Your task to perform on an android device: turn on javascript in the chrome app Image 0: 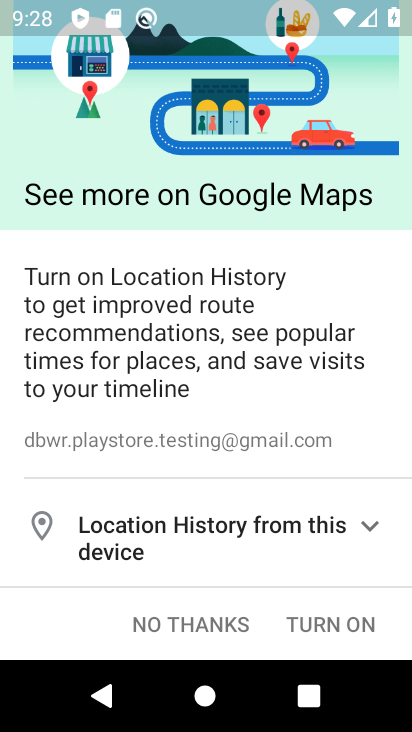
Step 0: press home button
Your task to perform on an android device: turn on javascript in the chrome app Image 1: 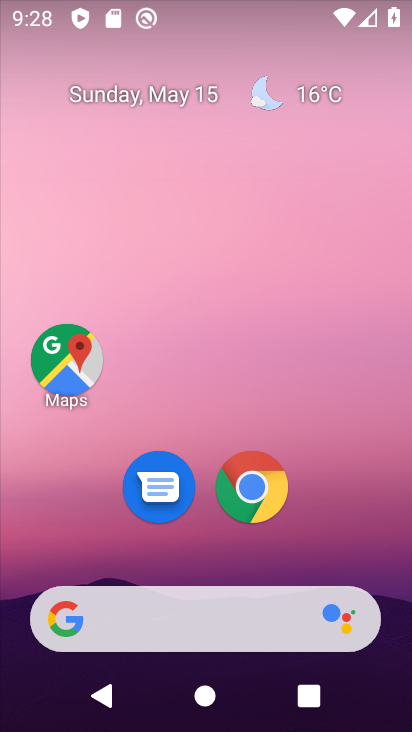
Step 1: click (253, 478)
Your task to perform on an android device: turn on javascript in the chrome app Image 2: 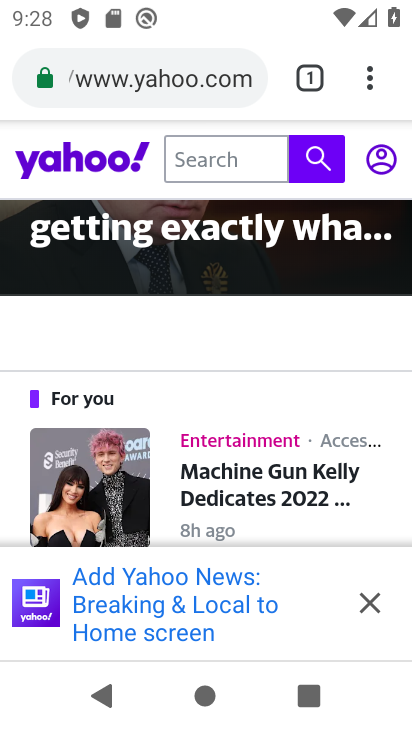
Step 2: click (253, 478)
Your task to perform on an android device: turn on javascript in the chrome app Image 3: 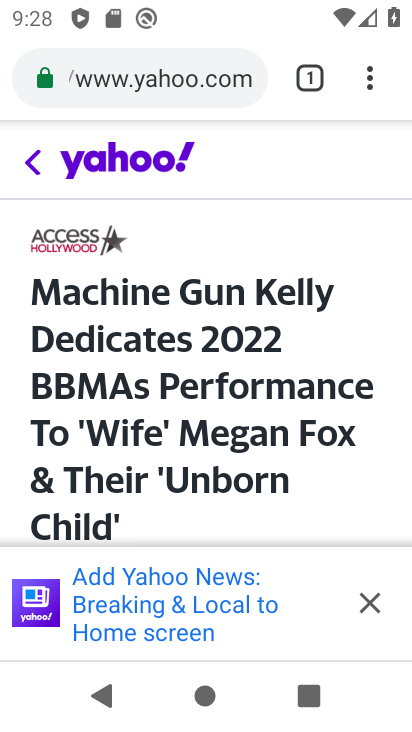
Step 3: click (368, 84)
Your task to perform on an android device: turn on javascript in the chrome app Image 4: 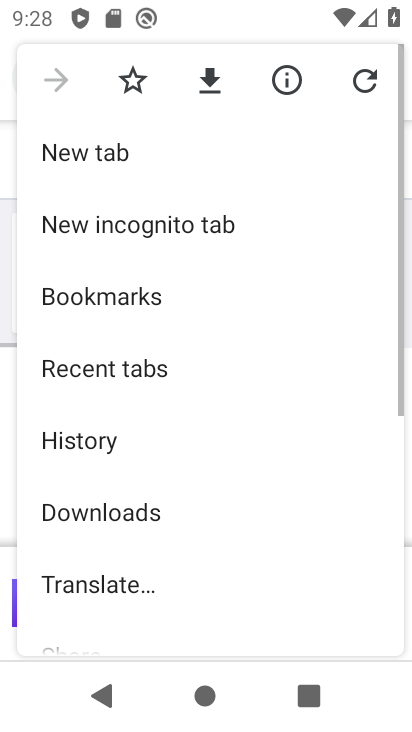
Step 4: drag from (223, 570) to (235, 51)
Your task to perform on an android device: turn on javascript in the chrome app Image 5: 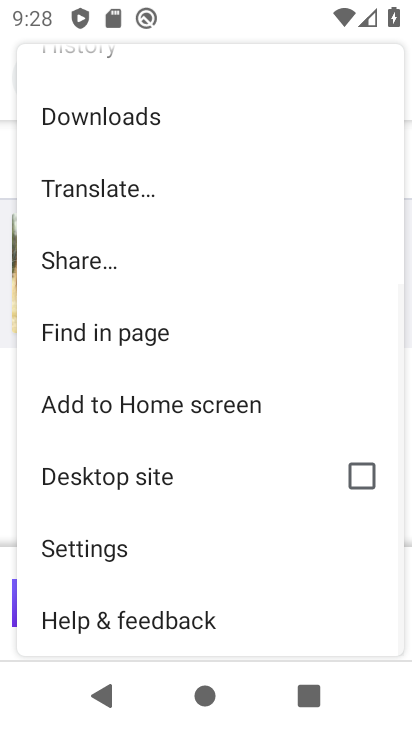
Step 5: click (99, 552)
Your task to perform on an android device: turn on javascript in the chrome app Image 6: 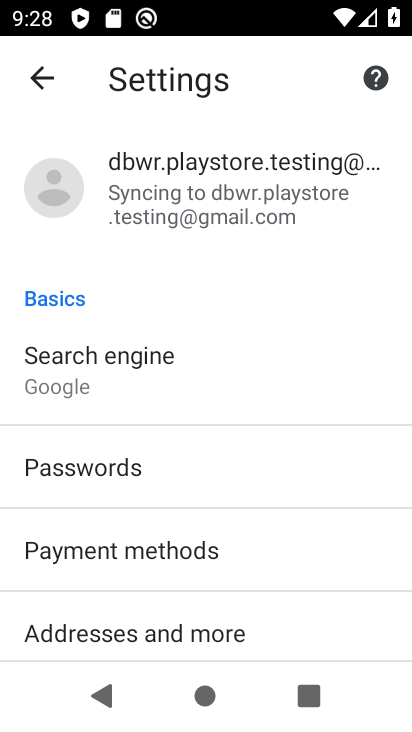
Step 6: drag from (290, 630) to (291, 231)
Your task to perform on an android device: turn on javascript in the chrome app Image 7: 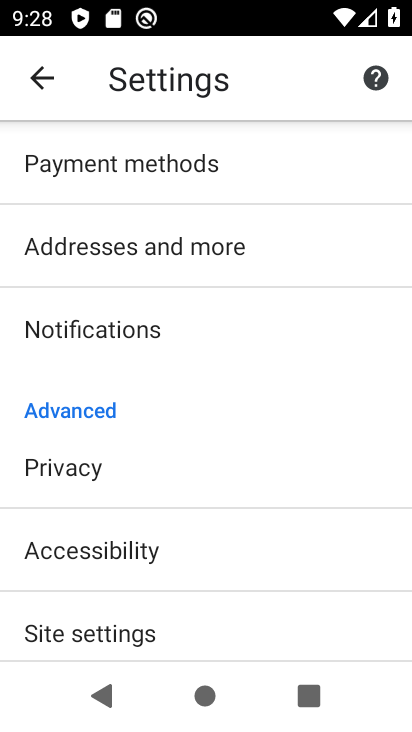
Step 7: click (86, 633)
Your task to perform on an android device: turn on javascript in the chrome app Image 8: 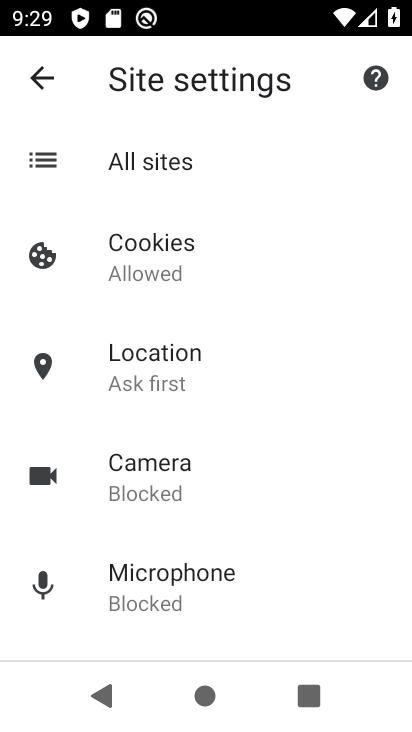
Step 8: drag from (237, 616) to (235, 201)
Your task to perform on an android device: turn on javascript in the chrome app Image 9: 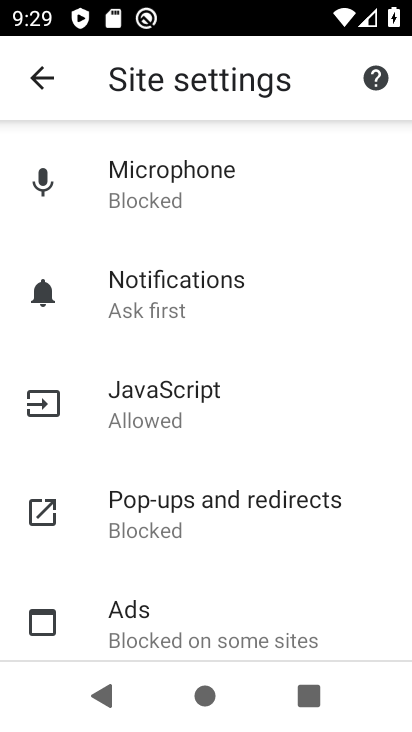
Step 9: click (128, 402)
Your task to perform on an android device: turn on javascript in the chrome app Image 10: 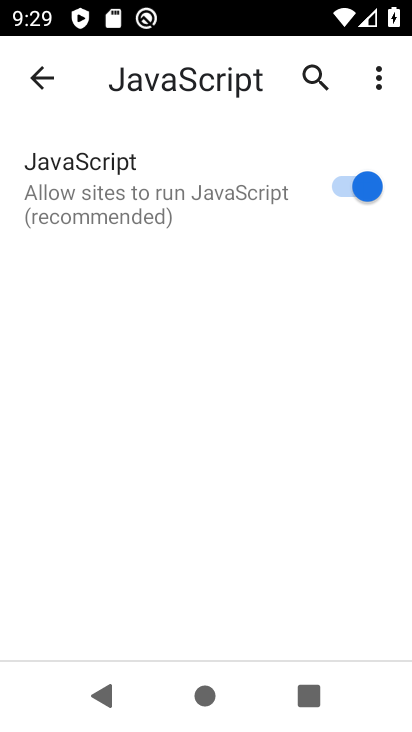
Step 10: task complete